Your task to perform on an android device: add a label to a message in the gmail app Image 0: 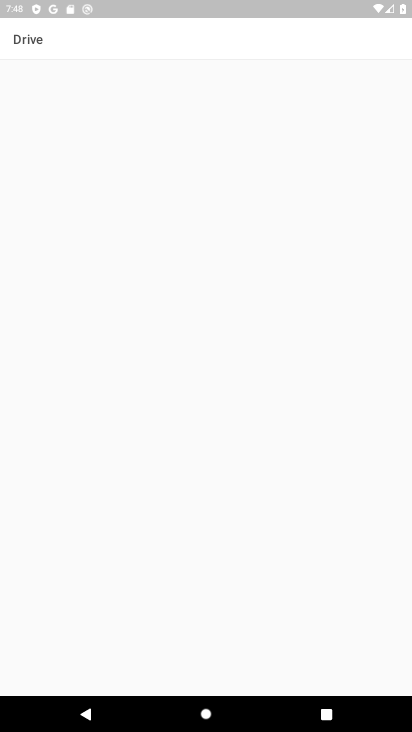
Step 0: press home button
Your task to perform on an android device: add a label to a message in the gmail app Image 1: 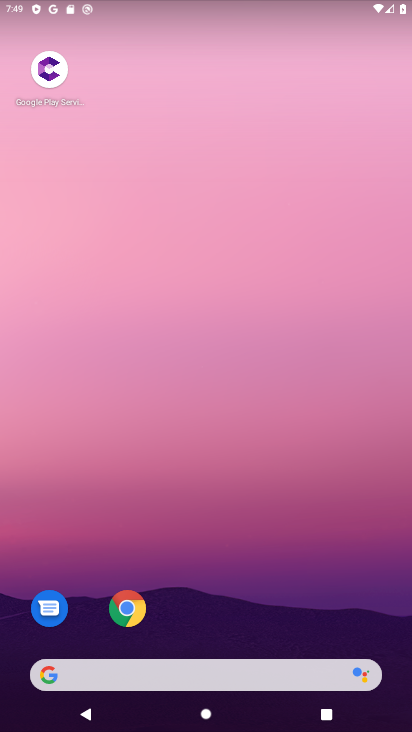
Step 1: drag from (329, 184) to (288, 0)
Your task to perform on an android device: add a label to a message in the gmail app Image 2: 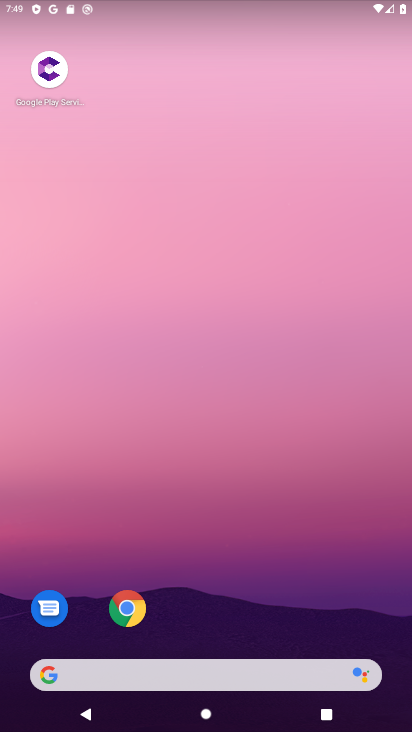
Step 2: drag from (390, 641) to (287, 77)
Your task to perform on an android device: add a label to a message in the gmail app Image 3: 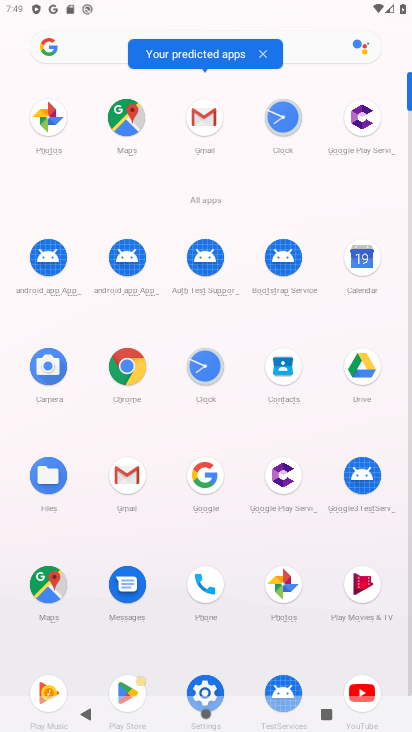
Step 3: click (198, 129)
Your task to perform on an android device: add a label to a message in the gmail app Image 4: 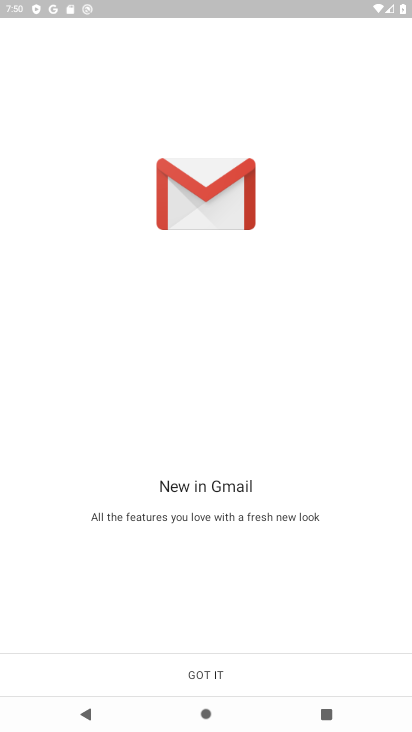
Step 4: click (223, 674)
Your task to perform on an android device: add a label to a message in the gmail app Image 5: 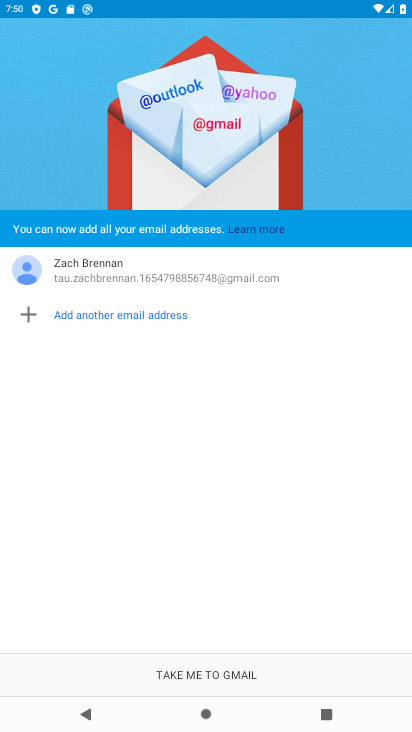
Step 5: click (220, 672)
Your task to perform on an android device: add a label to a message in the gmail app Image 6: 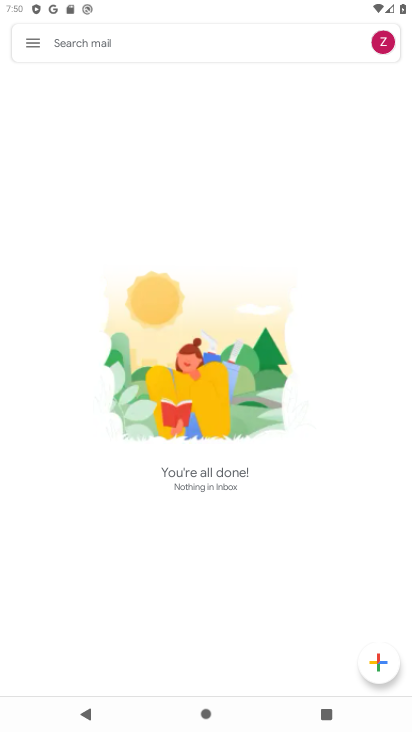
Step 6: task complete